Your task to perform on an android device: Open the phone app and click the voicemail tab. Image 0: 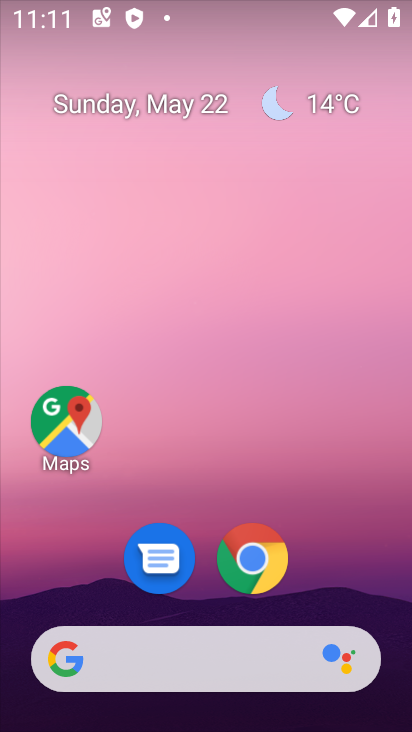
Step 0: drag from (355, 585) to (372, 19)
Your task to perform on an android device: Open the phone app and click the voicemail tab. Image 1: 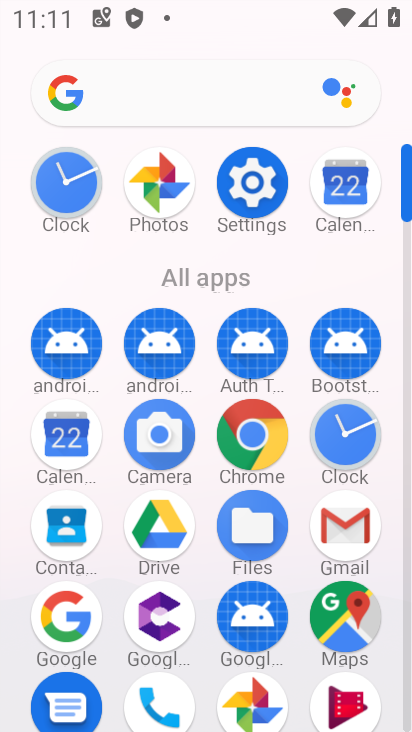
Step 1: click (159, 699)
Your task to perform on an android device: Open the phone app and click the voicemail tab. Image 2: 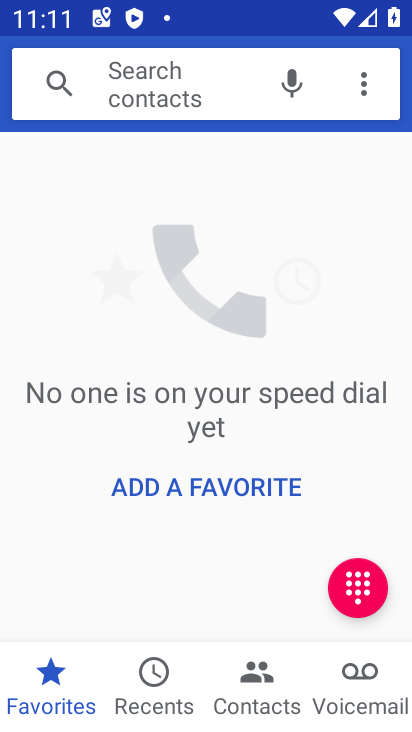
Step 2: click (361, 697)
Your task to perform on an android device: Open the phone app and click the voicemail tab. Image 3: 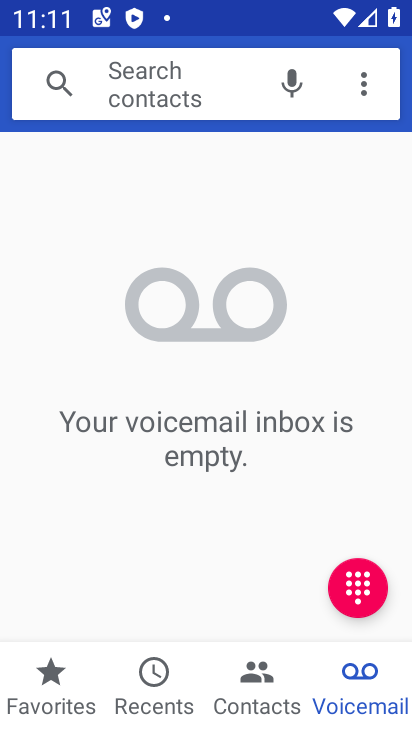
Step 3: task complete